Your task to perform on an android device: Show me productivity apps on the Play Store Image 0: 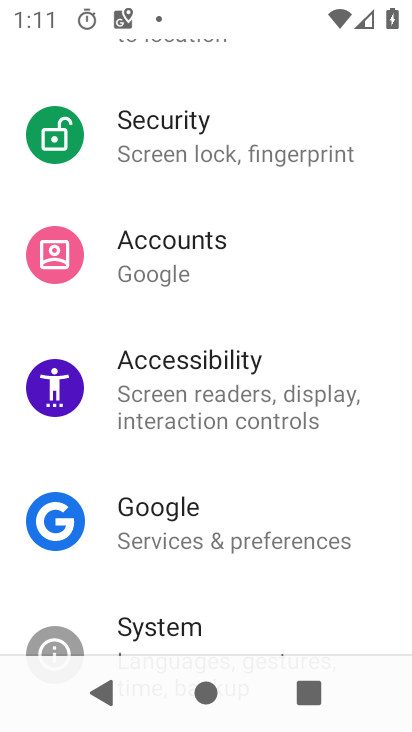
Step 0: press home button
Your task to perform on an android device: Show me productivity apps on the Play Store Image 1: 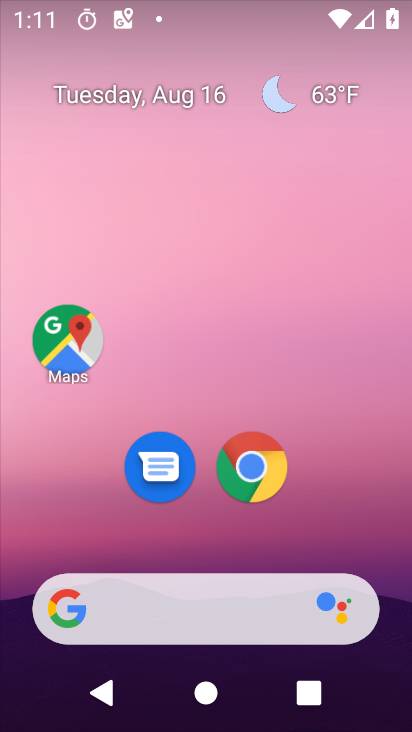
Step 1: drag from (383, 543) to (387, 137)
Your task to perform on an android device: Show me productivity apps on the Play Store Image 2: 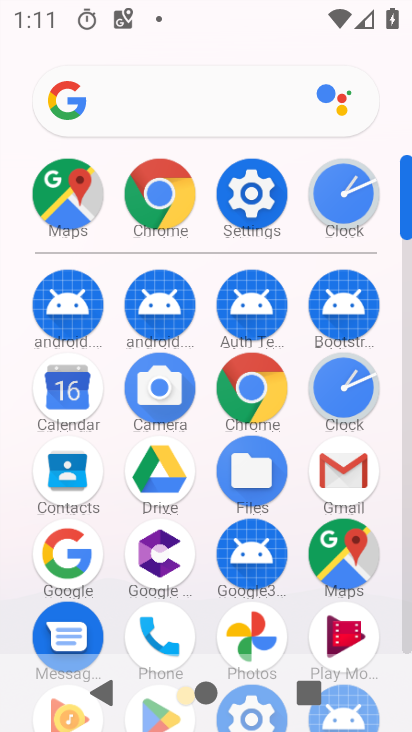
Step 2: drag from (387, 596) to (401, 347)
Your task to perform on an android device: Show me productivity apps on the Play Store Image 3: 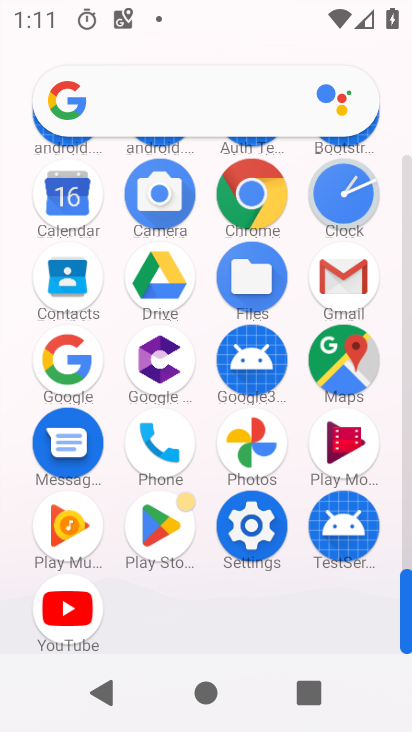
Step 3: click (155, 520)
Your task to perform on an android device: Show me productivity apps on the Play Store Image 4: 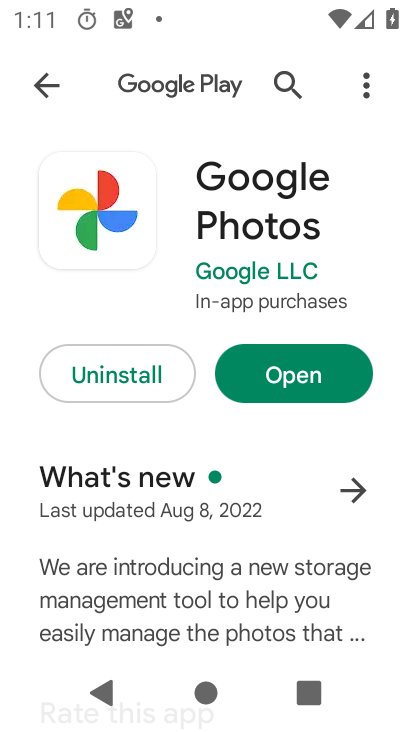
Step 4: press back button
Your task to perform on an android device: Show me productivity apps on the Play Store Image 5: 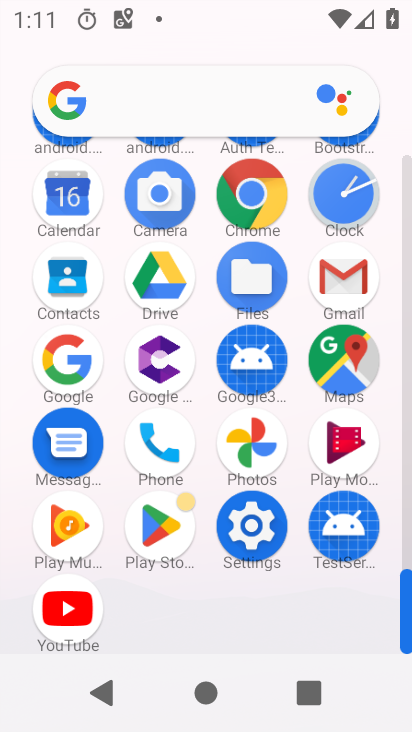
Step 5: click (162, 527)
Your task to perform on an android device: Show me productivity apps on the Play Store Image 6: 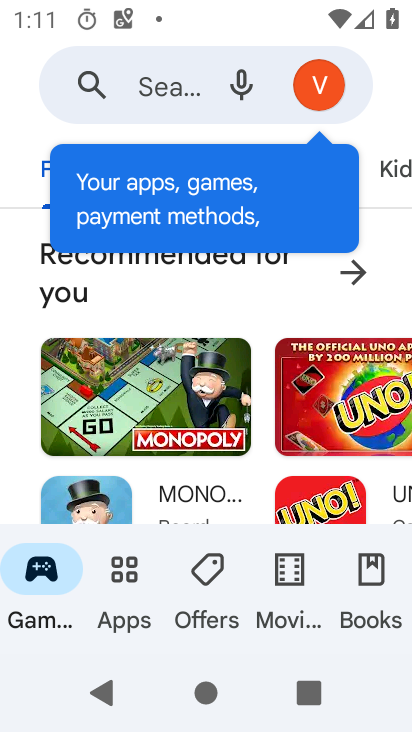
Step 6: click (116, 572)
Your task to perform on an android device: Show me productivity apps on the Play Store Image 7: 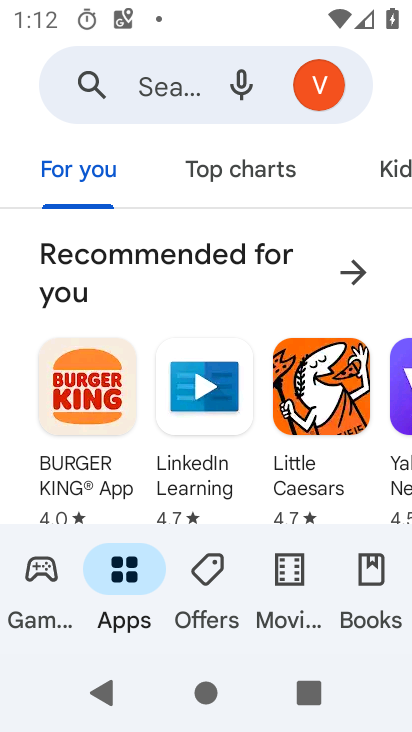
Step 7: task complete